Your task to perform on an android device: turn on airplane mode Image 0: 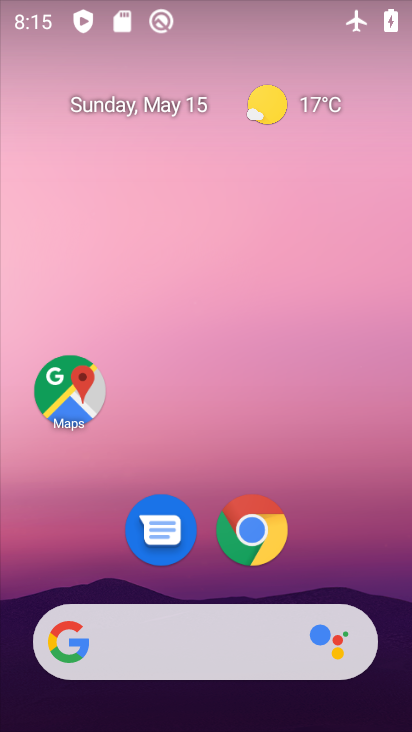
Step 0: drag from (192, 723) to (195, 289)
Your task to perform on an android device: turn on airplane mode Image 1: 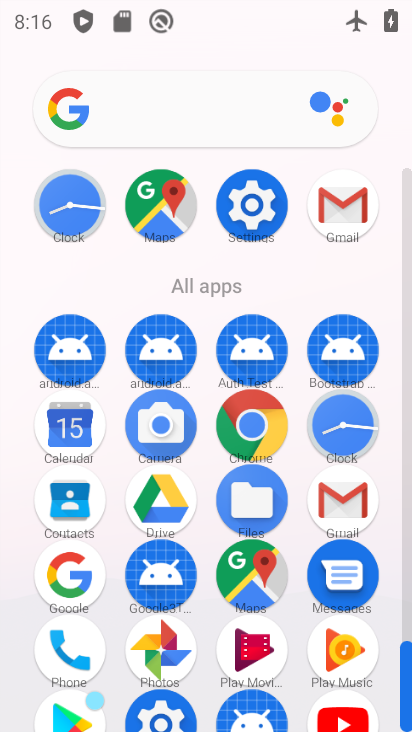
Step 1: click (248, 210)
Your task to perform on an android device: turn on airplane mode Image 2: 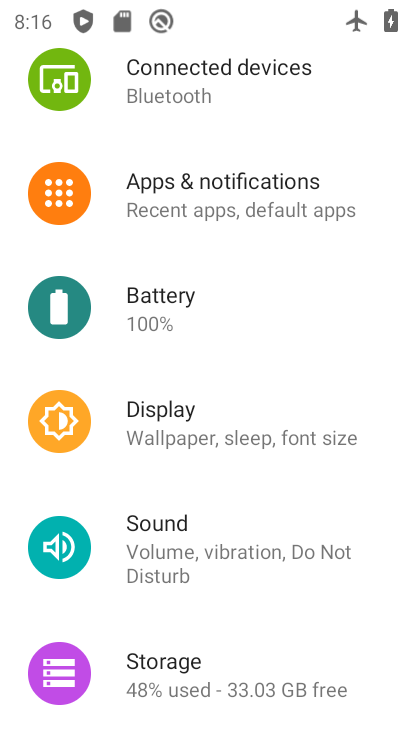
Step 2: drag from (265, 141) to (237, 508)
Your task to perform on an android device: turn on airplane mode Image 3: 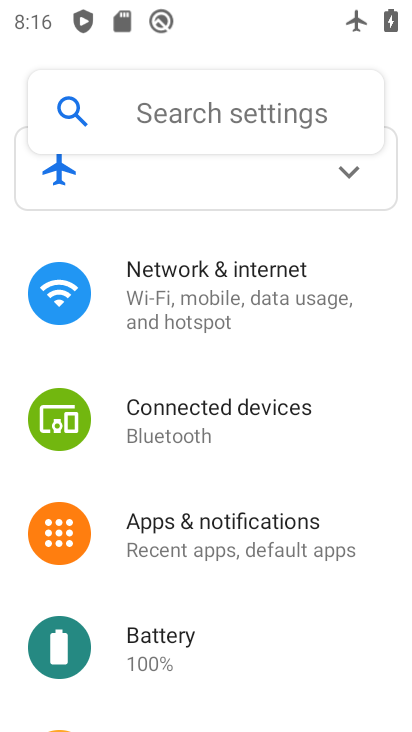
Step 3: click (213, 295)
Your task to perform on an android device: turn on airplane mode Image 4: 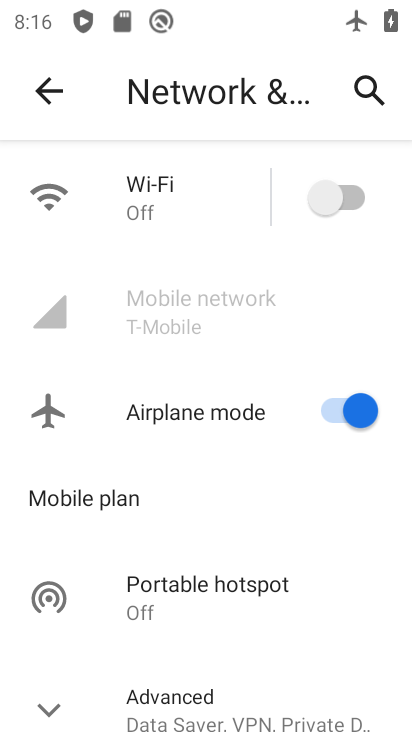
Step 4: task complete